Your task to perform on an android device: Show the shopping cart on costco.com. Image 0: 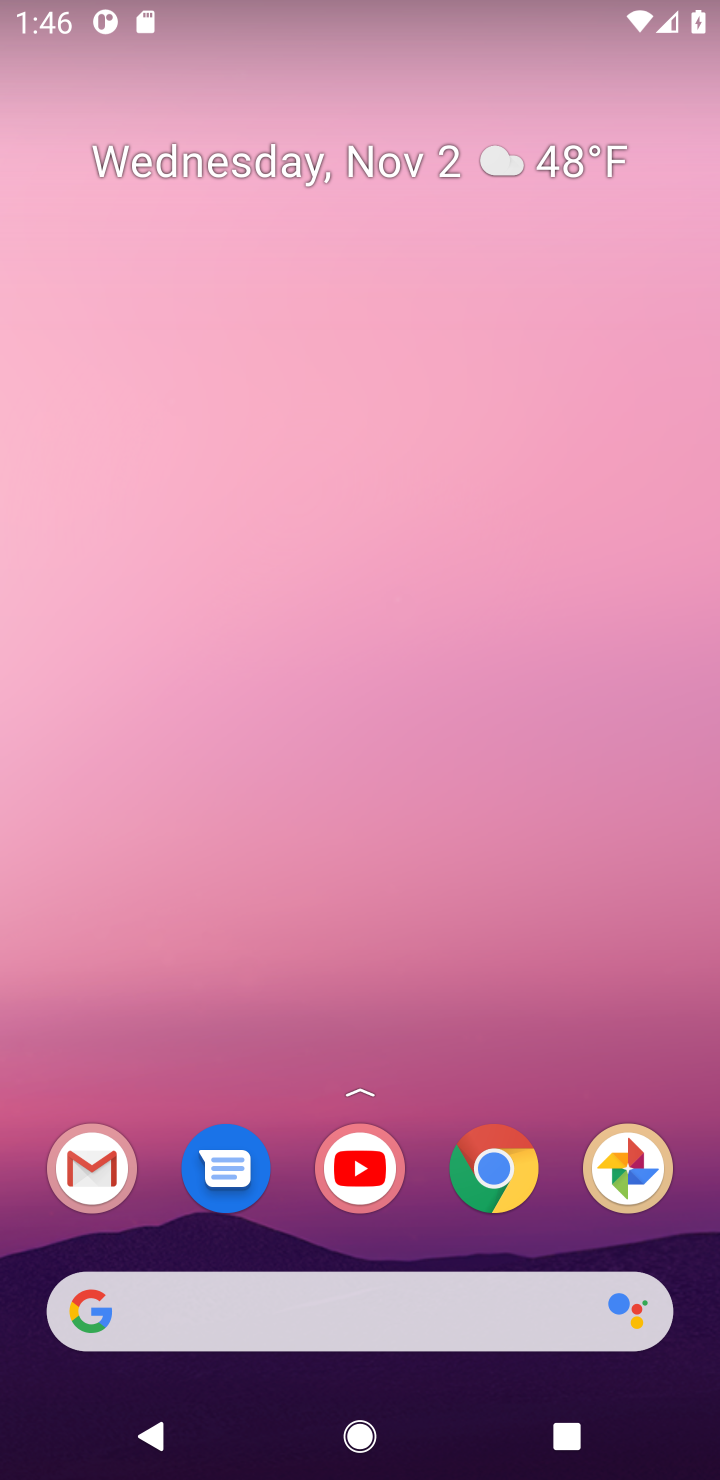
Step 0: click (387, 1320)
Your task to perform on an android device: Show the shopping cart on costco.com. Image 1: 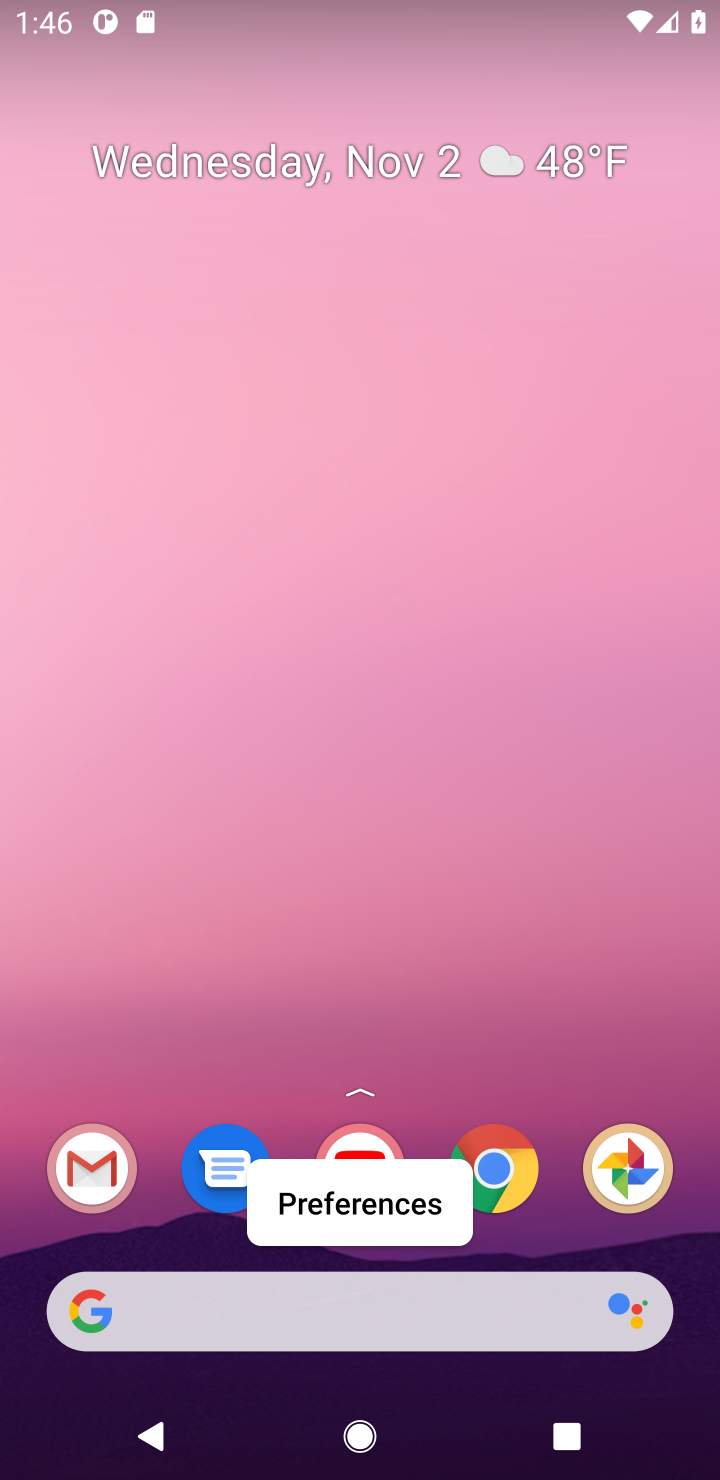
Step 1: click (387, 1320)
Your task to perform on an android device: Show the shopping cart on costco.com. Image 2: 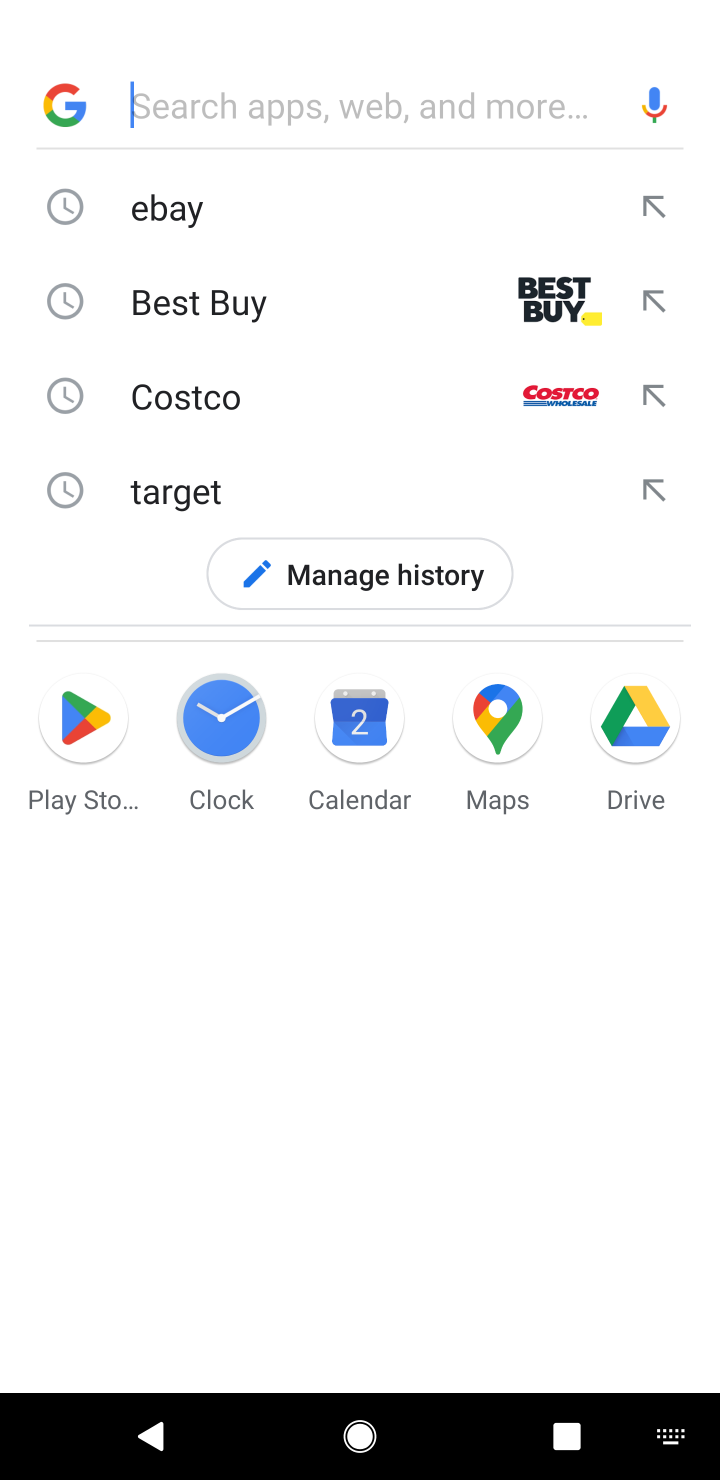
Step 2: click (330, 401)
Your task to perform on an android device: Show the shopping cart on costco.com. Image 3: 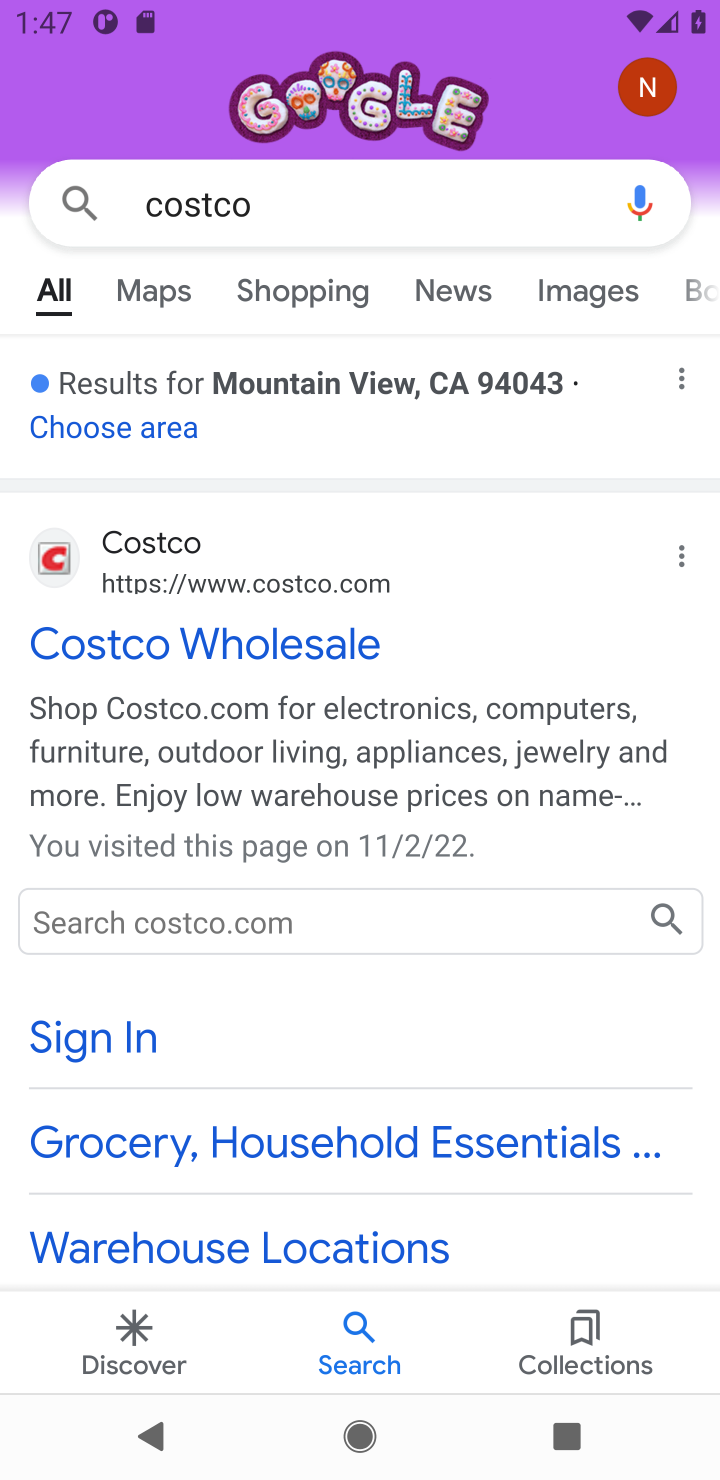
Step 3: click (164, 532)
Your task to perform on an android device: Show the shopping cart on costco.com. Image 4: 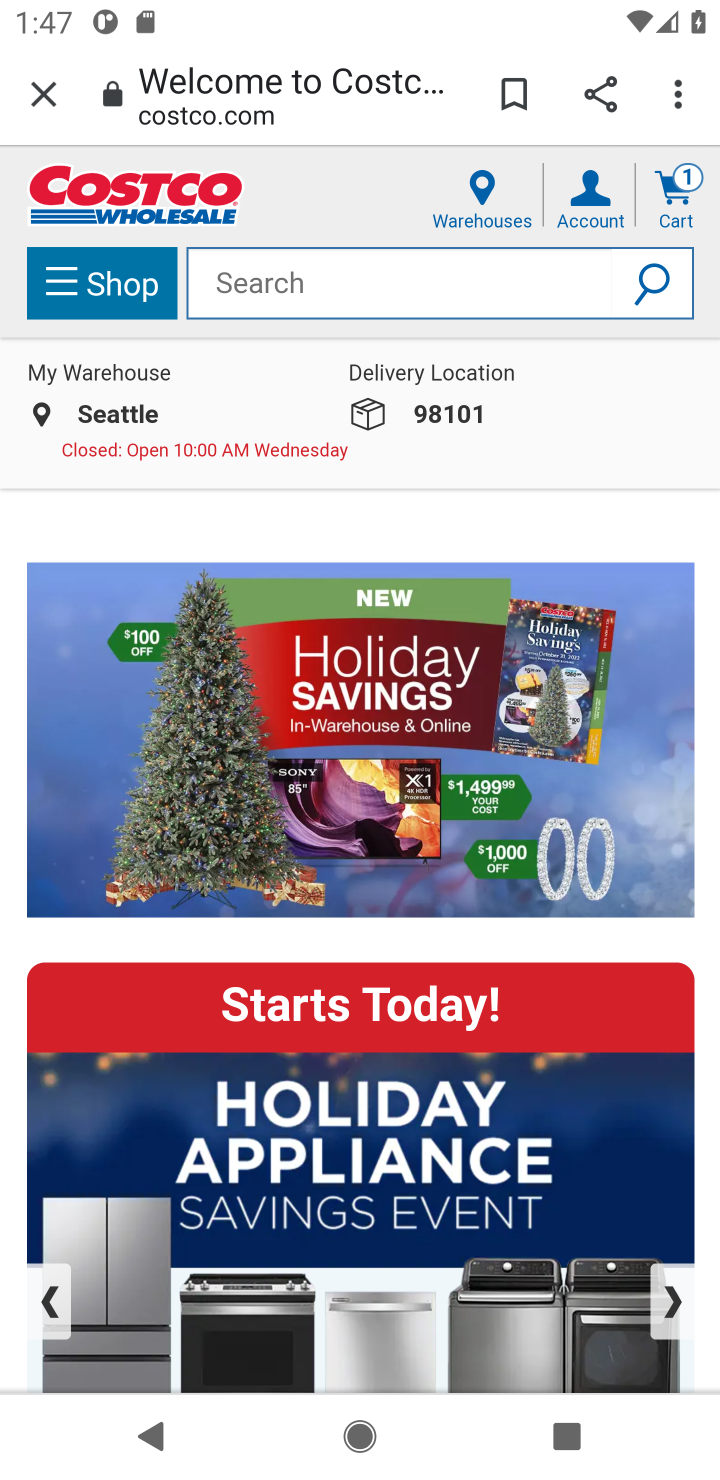
Step 4: click (677, 201)
Your task to perform on an android device: Show the shopping cart on costco.com. Image 5: 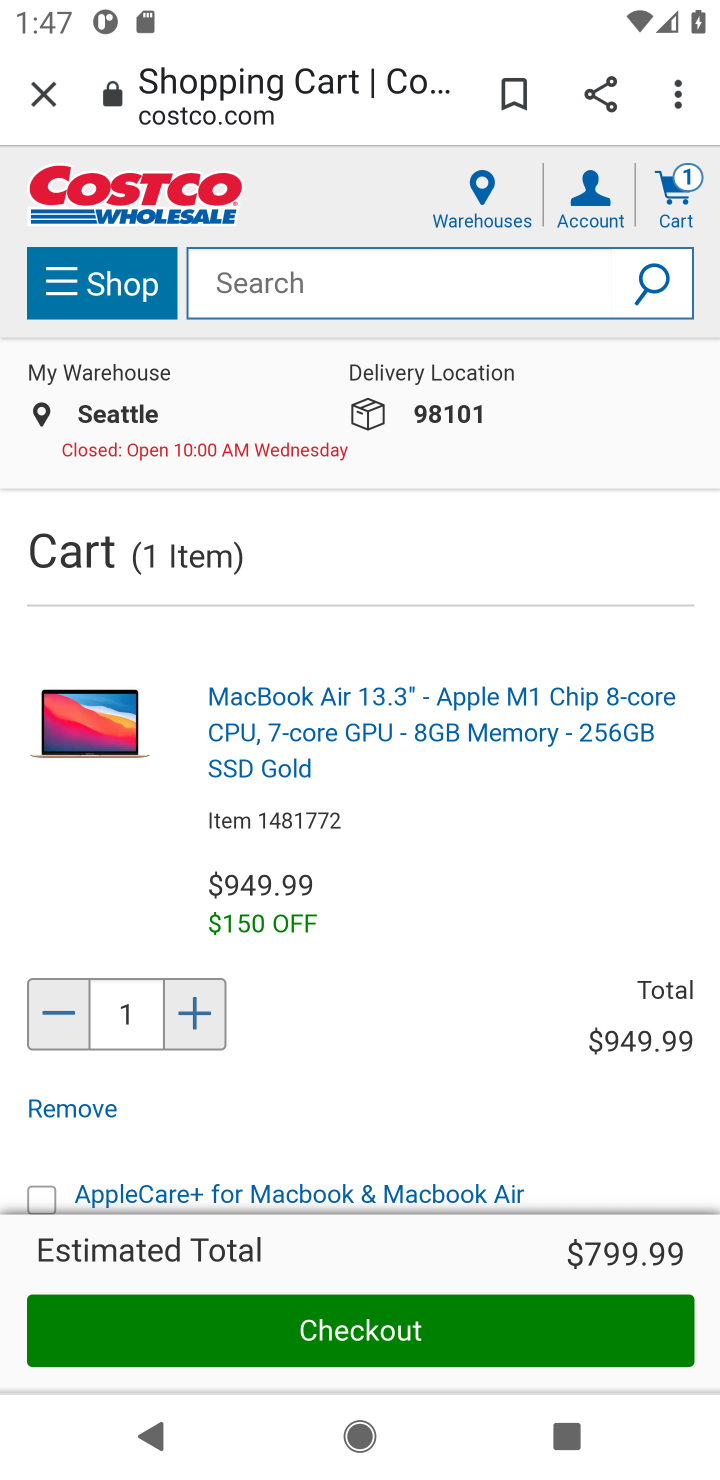
Step 5: task complete